Your task to perform on an android device: Open Yahoo.com Image 0: 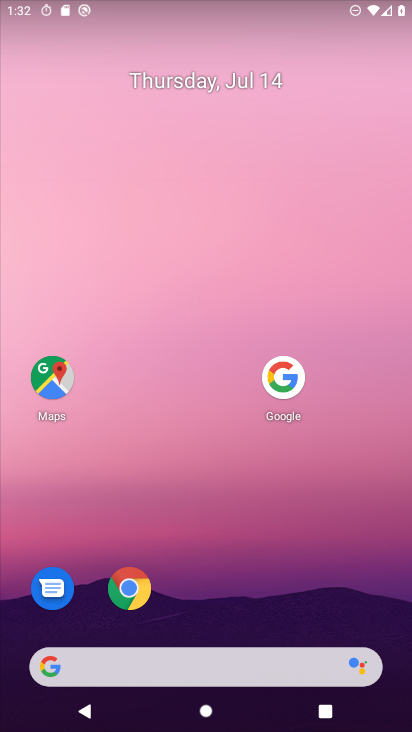
Step 0: click (131, 594)
Your task to perform on an android device: Open Yahoo.com Image 1: 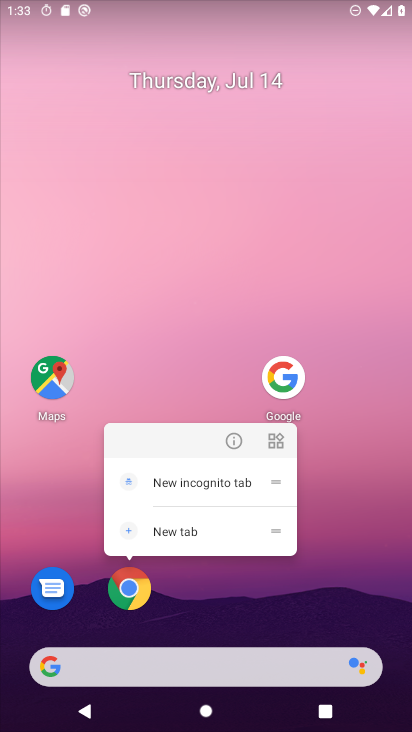
Step 1: click (131, 594)
Your task to perform on an android device: Open Yahoo.com Image 2: 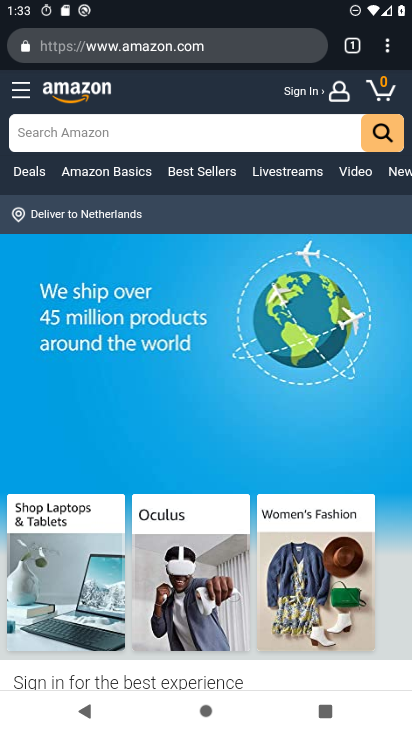
Step 2: drag from (387, 48) to (274, 157)
Your task to perform on an android device: Open Yahoo.com Image 3: 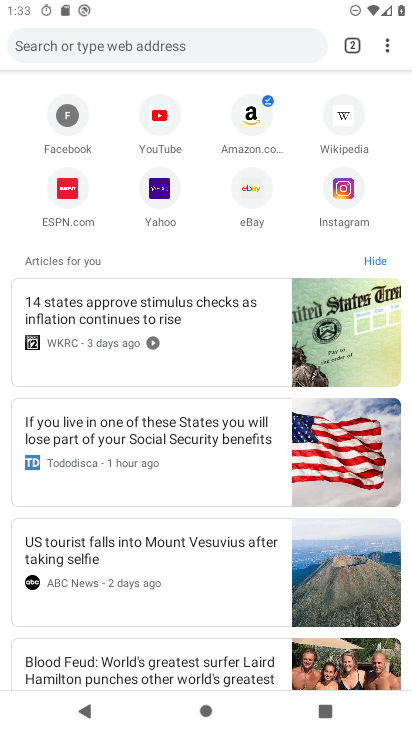
Step 3: click (152, 188)
Your task to perform on an android device: Open Yahoo.com Image 4: 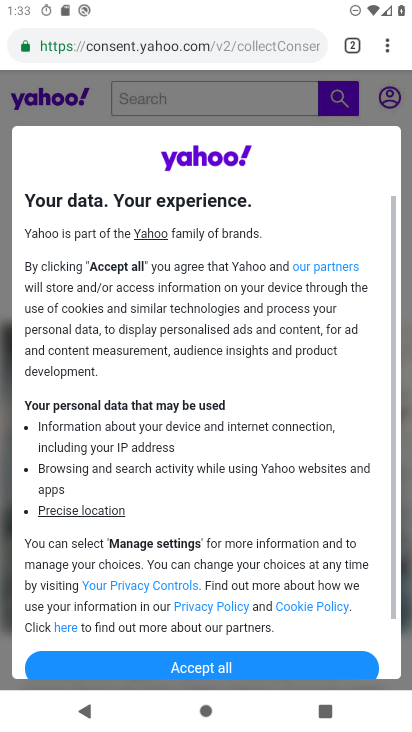
Step 4: click (210, 664)
Your task to perform on an android device: Open Yahoo.com Image 5: 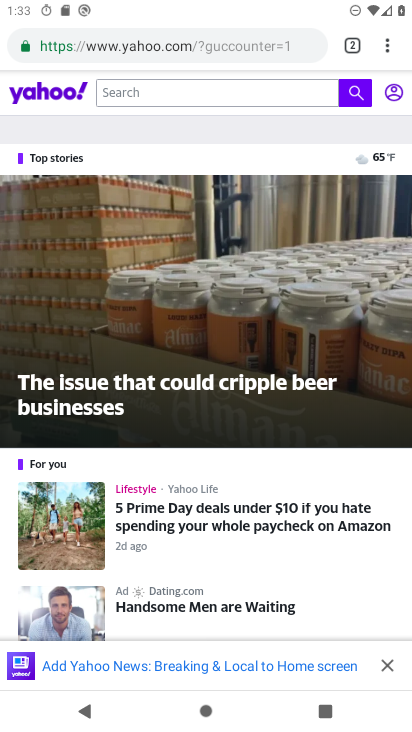
Step 5: task complete